Your task to perform on an android device: turn off smart reply in the gmail app Image 0: 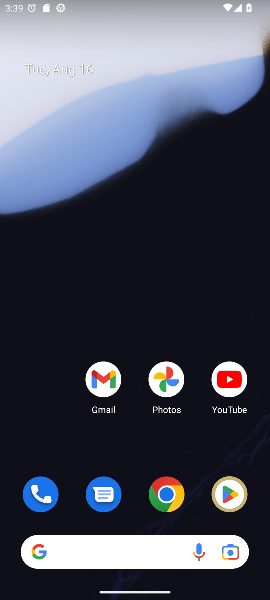
Step 0: drag from (156, 520) to (91, 559)
Your task to perform on an android device: turn off smart reply in the gmail app Image 1: 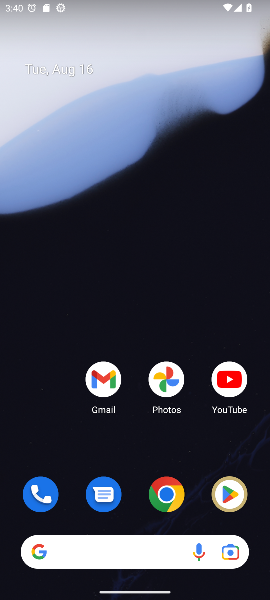
Step 1: drag from (148, 541) to (141, 138)
Your task to perform on an android device: turn off smart reply in the gmail app Image 2: 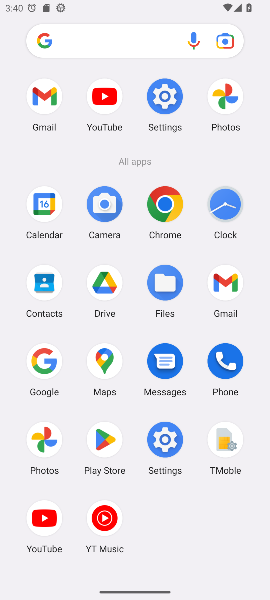
Step 2: click (237, 296)
Your task to perform on an android device: turn off smart reply in the gmail app Image 3: 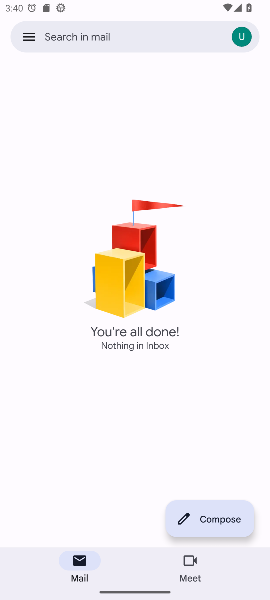
Step 3: click (25, 42)
Your task to perform on an android device: turn off smart reply in the gmail app Image 4: 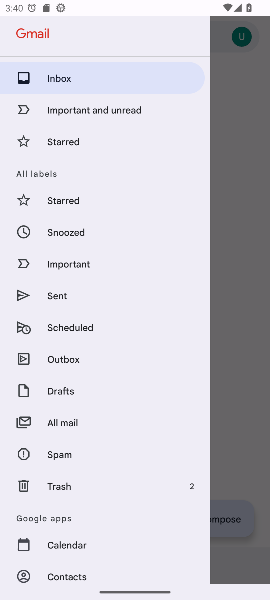
Step 4: drag from (47, 489) to (45, 91)
Your task to perform on an android device: turn off smart reply in the gmail app Image 5: 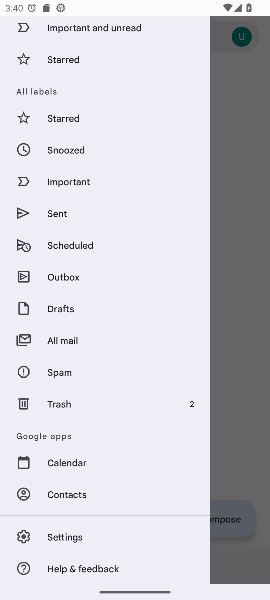
Step 5: click (38, 535)
Your task to perform on an android device: turn off smart reply in the gmail app Image 6: 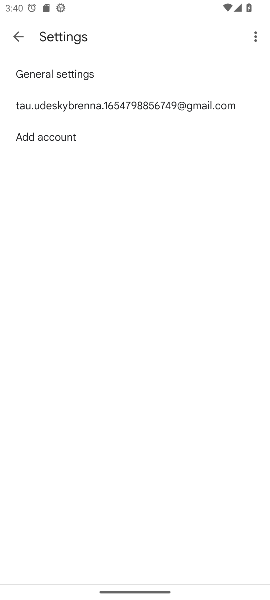
Step 6: click (43, 108)
Your task to perform on an android device: turn off smart reply in the gmail app Image 7: 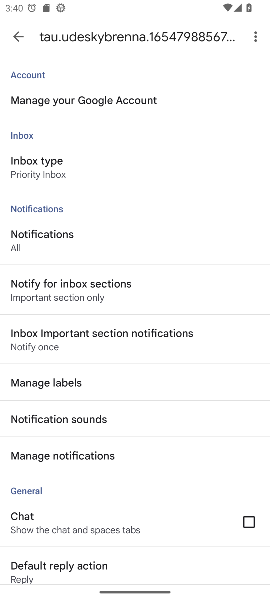
Step 7: drag from (21, 445) to (40, 109)
Your task to perform on an android device: turn off smart reply in the gmail app Image 8: 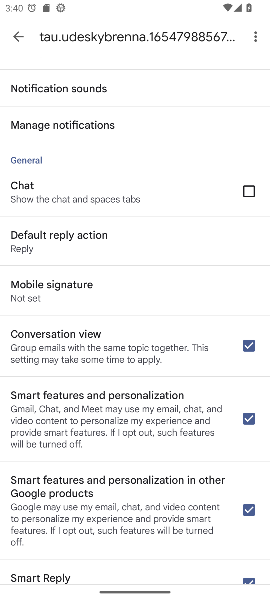
Step 8: drag from (143, 516) to (127, 292)
Your task to perform on an android device: turn off smart reply in the gmail app Image 9: 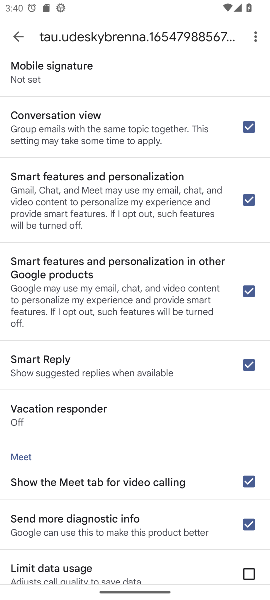
Step 9: click (230, 370)
Your task to perform on an android device: turn off smart reply in the gmail app Image 10: 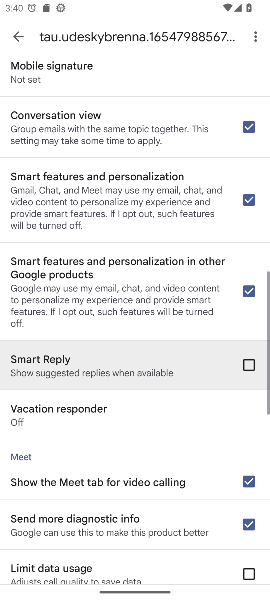
Step 10: task complete